Your task to perform on an android device: Open Wikipedia Image 0: 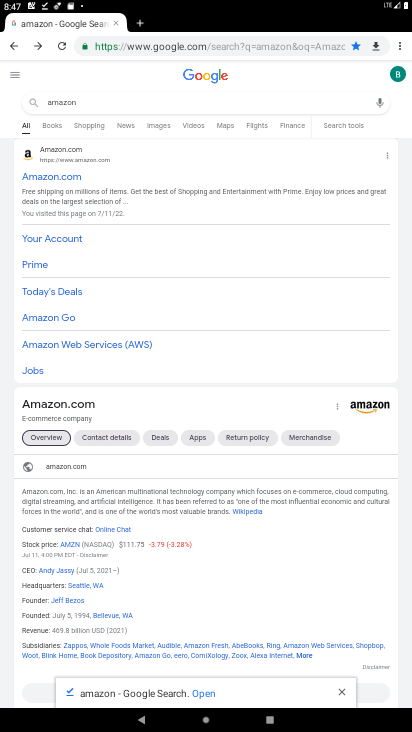
Step 0: click (307, 45)
Your task to perform on an android device: Open Wikipedia Image 1: 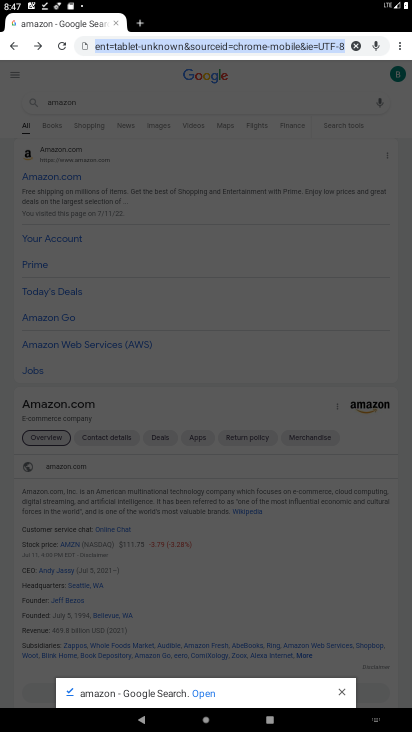
Step 1: click (379, 512)
Your task to perform on an android device: Open Wikipedia Image 2: 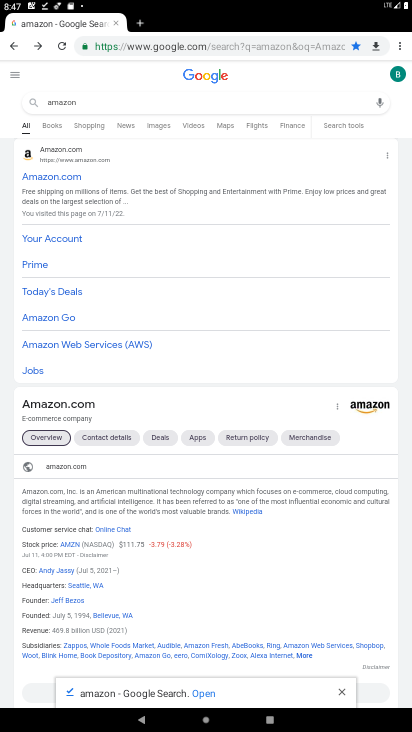
Step 2: click (337, 41)
Your task to perform on an android device: Open Wikipedia Image 3: 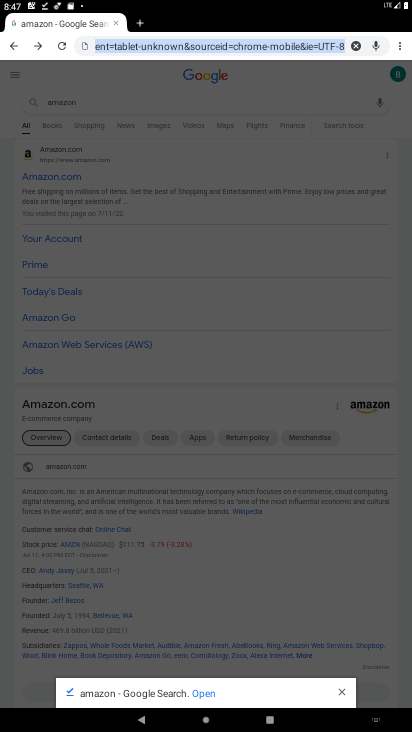
Step 3: click (356, 43)
Your task to perform on an android device: Open Wikipedia Image 4: 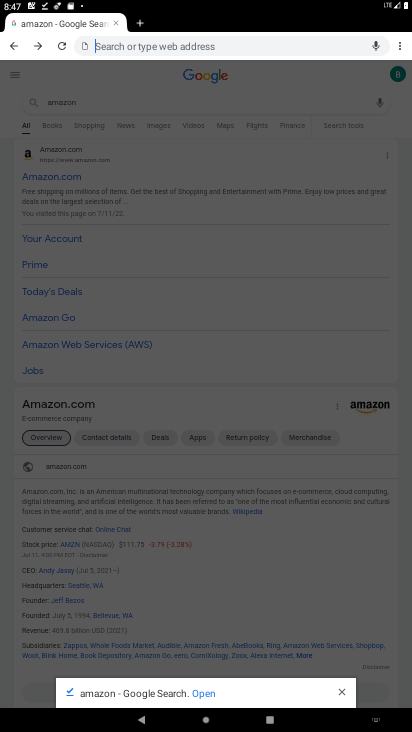
Step 4: type "Wikipedia"
Your task to perform on an android device: Open Wikipedia Image 5: 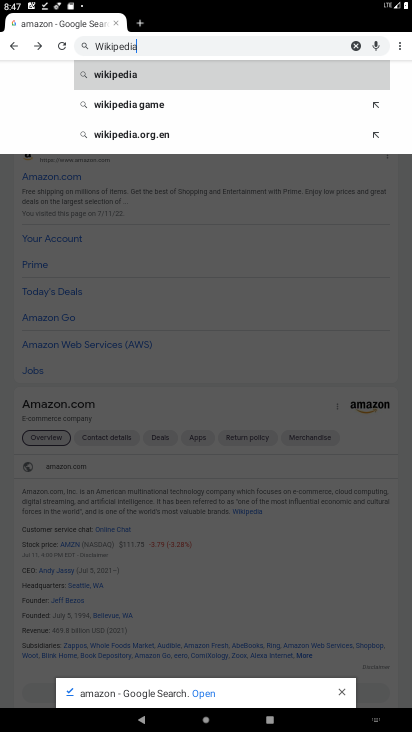
Step 5: click (130, 71)
Your task to perform on an android device: Open Wikipedia Image 6: 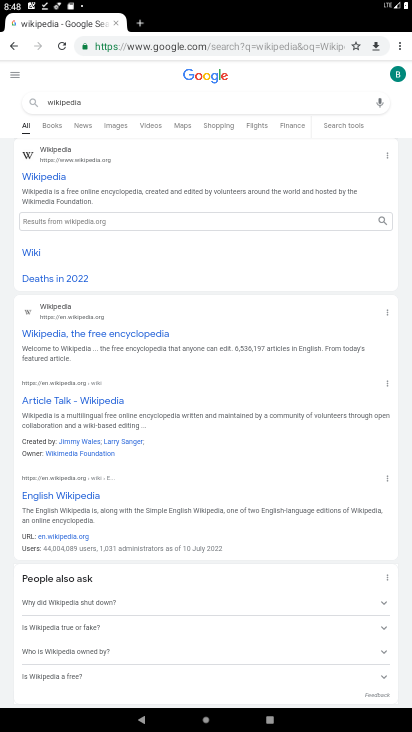
Step 6: click (35, 174)
Your task to perform on an android device: Open Wikipedia Image 7: 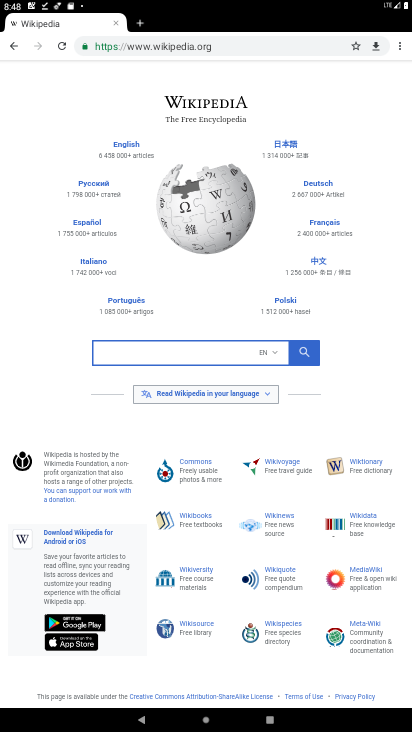
Step 7: task complete